Your task to perform on an android device: Open maps Image 0: 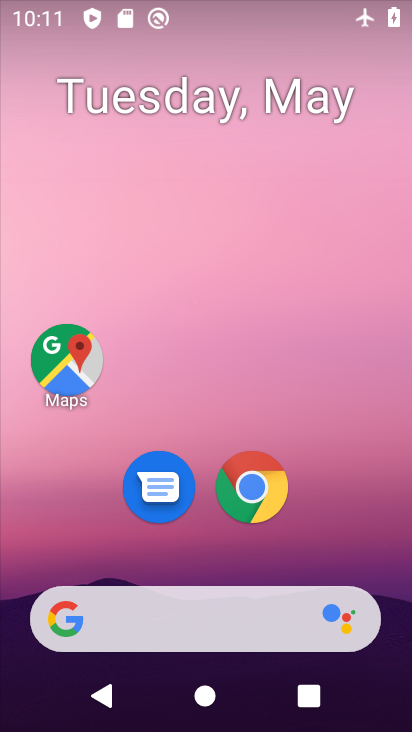
Step 0: click (265, 269)
Your task to perform on an android device: Open maps Image 1: 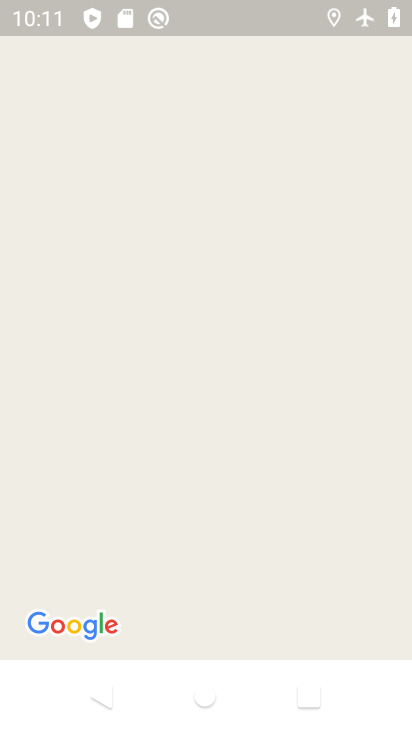
Step 1: task complete